Your task to perform on an android device: see creations saved in the google photos Image 0: 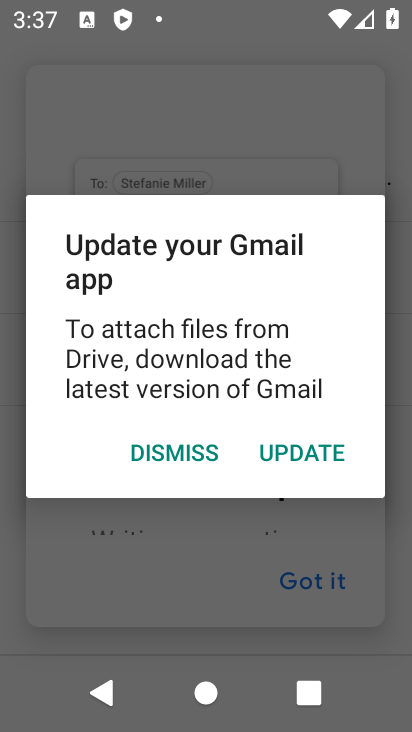
Step 0: task complete